Your task to perform on an android device: Turn off the flashlight Image 0: 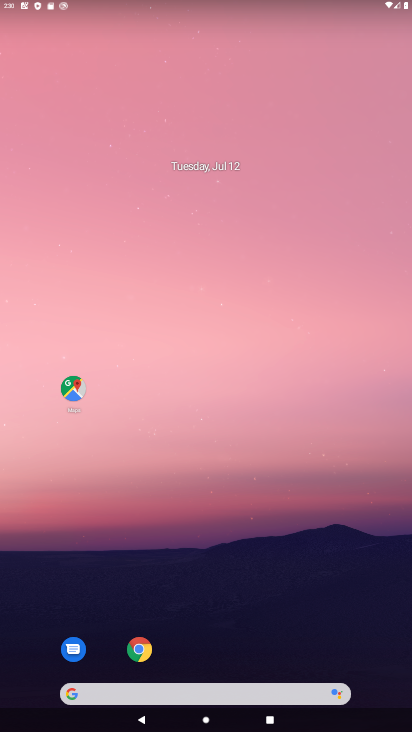
Step 0: press home button
Your task to perform on an android device: Turn off the flashlight Image 1: 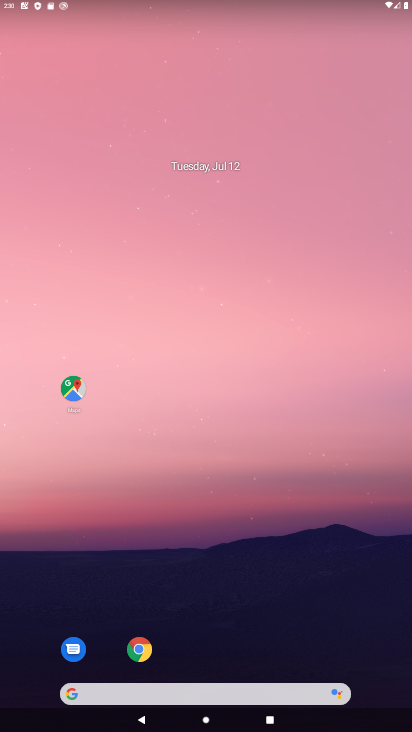
Step 1: drag from (229, 626) to (242, 120)
Your task to perform on an android device: Turn off the flashlight Image 2: 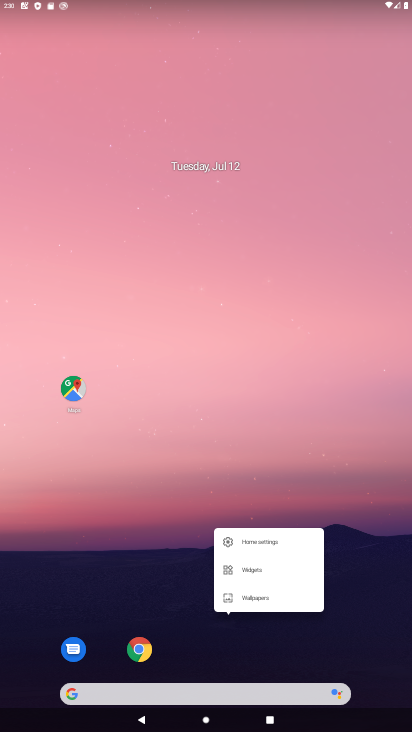
Step 2: click (176, 390)
Your task to perform on an android device: Turn off the flashlight Image 3: 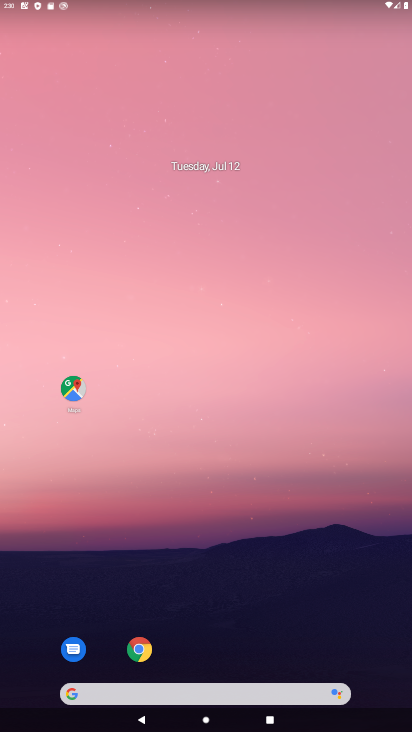
Step 3: drag from (217, 627) to (219, 110)
Your task to perform on an android device: Turn off the flashlight Image 4: 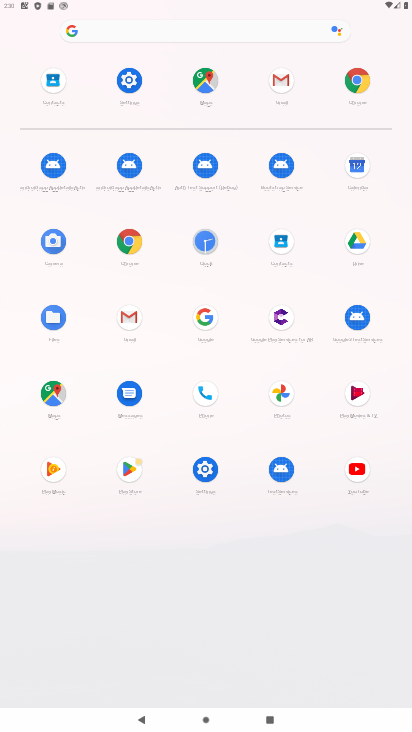
Step 4: click (127, 89)
Your task to perform on an android device: Turn off the flashlight Image 5: 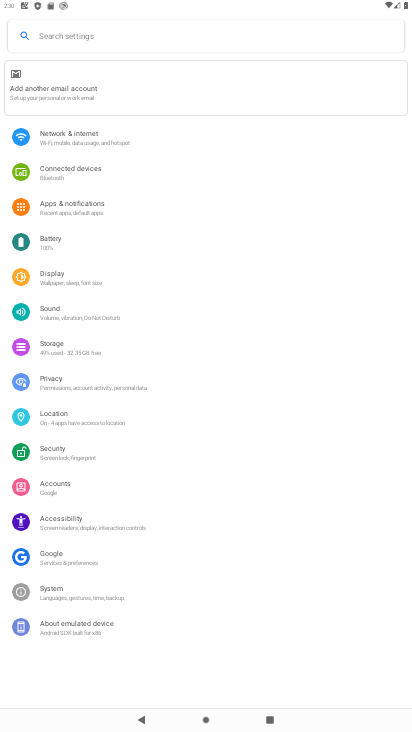
Step 5: click (94, 210)
Your task to perform on an android device: Turn off the flashlight Image 6: 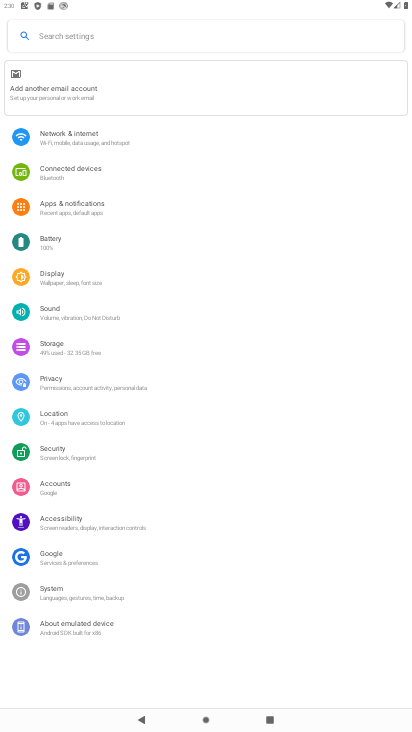
Step 6: task complete